Your task to perform on an android device: clear history in the chrome app Image 0: 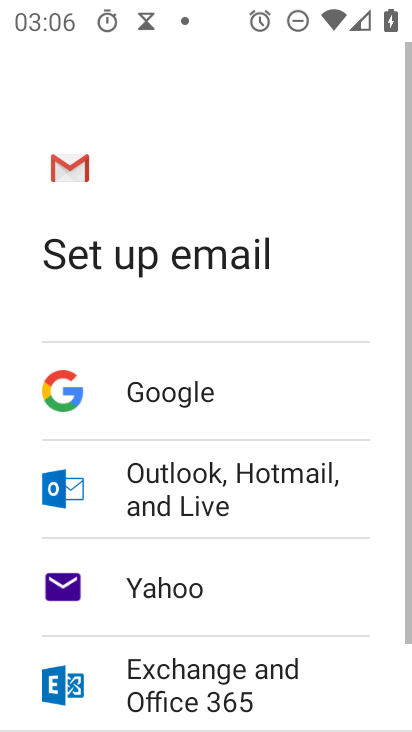
Step 0: press home button
Your task to perform on an android device: clear history in the chrome app Image 1: 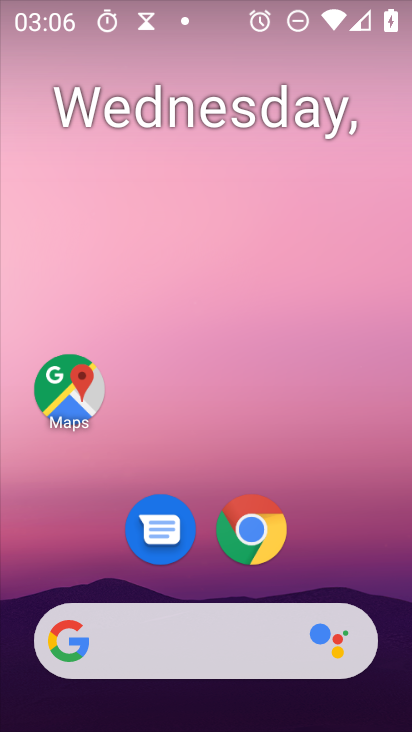
Step 1: drag from (330, 625) to (355, 30)
Your task to perform on an android device: clear history in the chrome app Image 2: 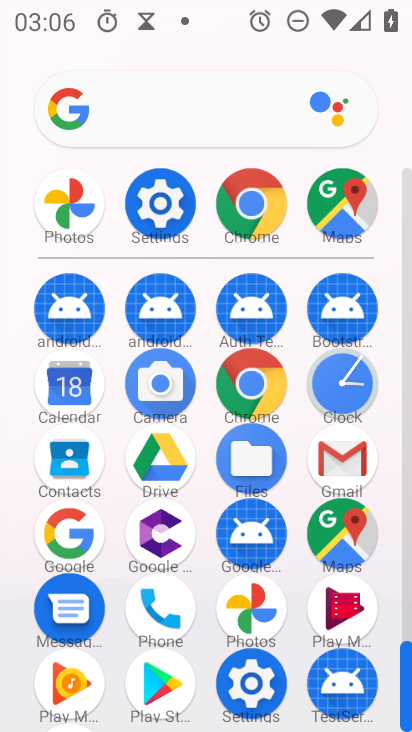
Step 2: click (257, 372)
Your task to perform on an android device: clear history in the chrome app Image 3: 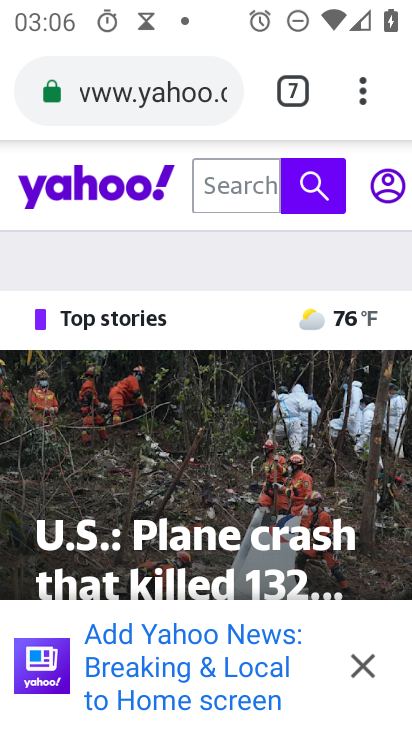
Step 3: click (343, 83)
Your task to perform on an android device: clear history in the chrome app Image 4: 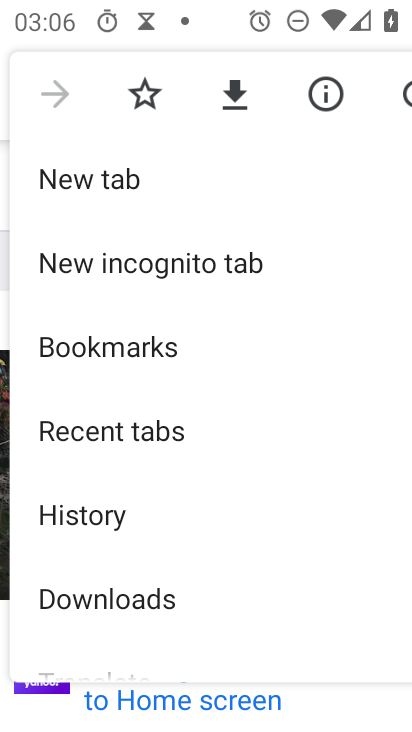
Step 4: drag from (280, 541) to (322, 87)
Your task to perform on an android device: clear history in the chrome app Image 5: 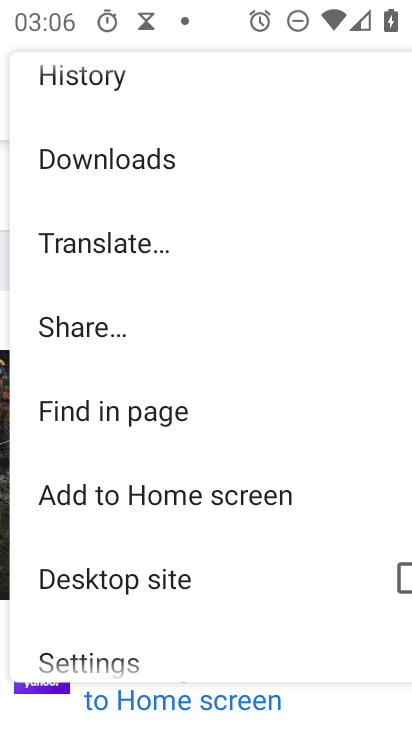
Step 5: click (157, 76)
Your task to perform on an android device: clear history in the chrome app Image 6: 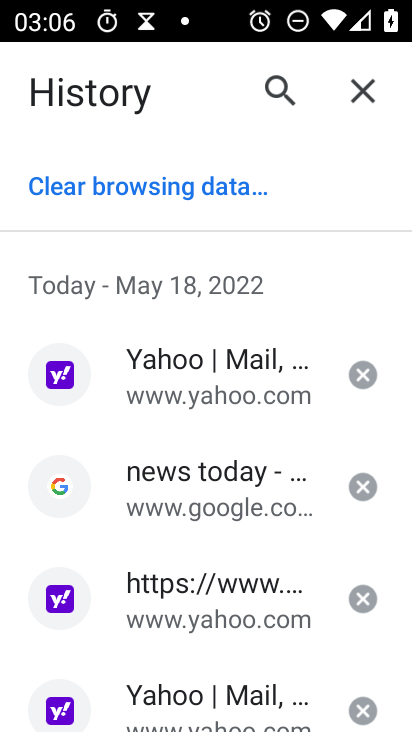
Step 6: task complete